Your task to perform on an android device: turn off data saver in the chrome app Image 0: 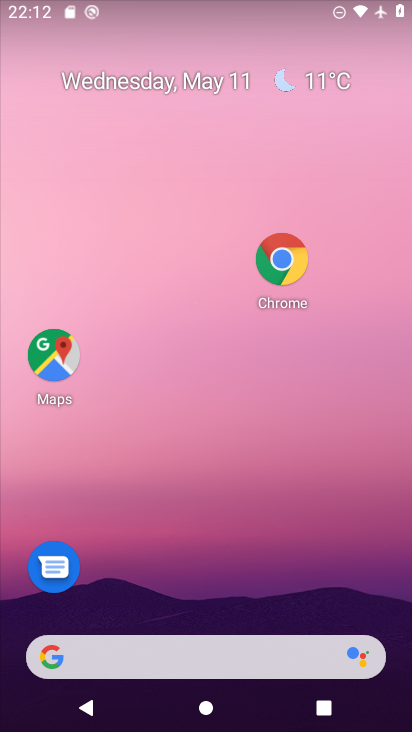
Step 0: press home button
Your task to perform on an android device: turn off data saver in the chrome app Image 1: 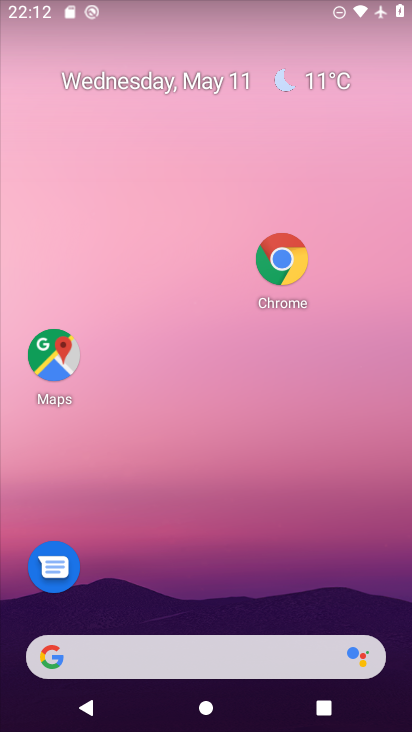
Step 1: drag from (132, 667) to (242, 250)
Your task to perform on an android device: turn off data saver in the chrome app Image 2: 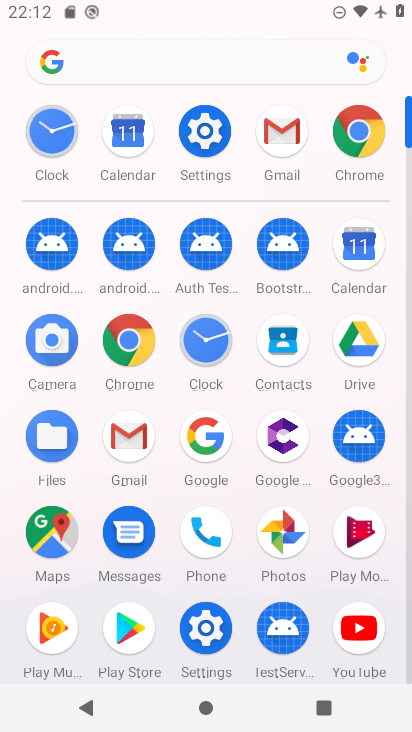
Step 2: click (348, 137)
Your task to perform on an android device: turn off data saver in the chrome app Image 3: 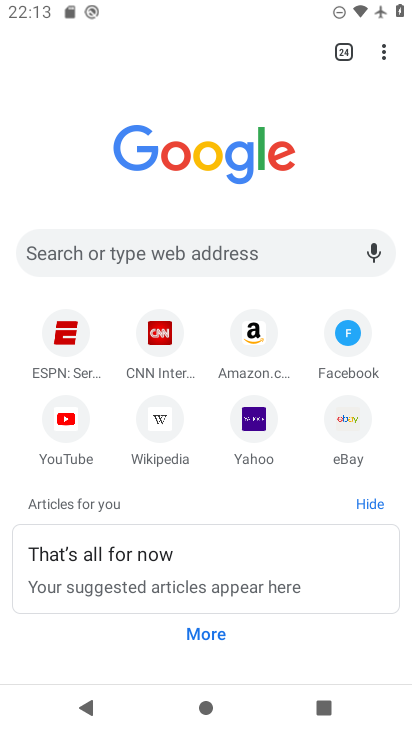
Step 3: drag from (382, 46) to (213, 443)
Your task to perform on an android device: turn off data saver in the chrome app Image 4: 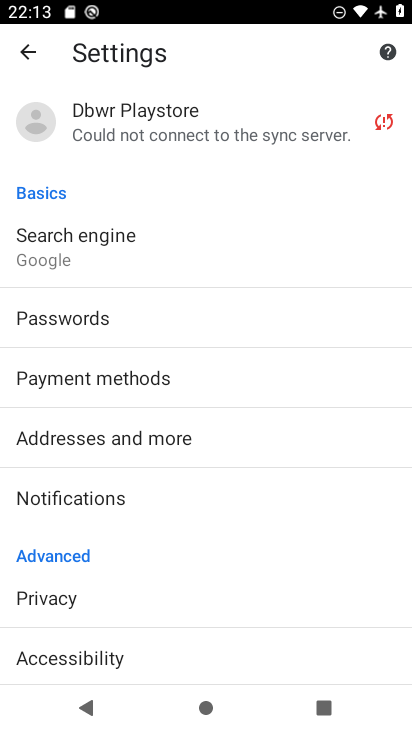
Step 4: drag from (129, 579) to (236, 275)
Your task to perform on an android device: turn off data saver in the chrome app Image 5: 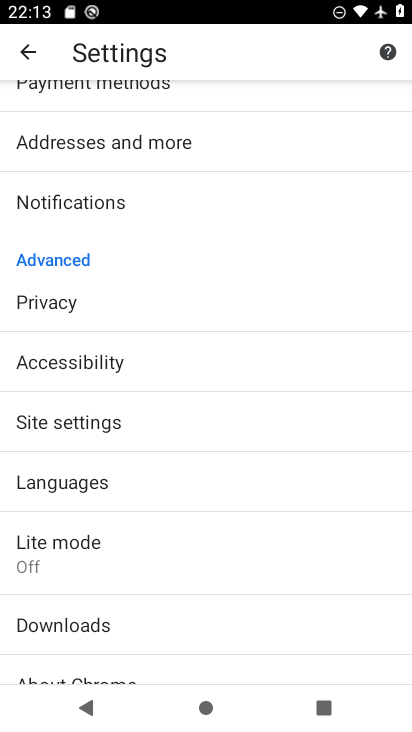
Step 5: click (91, 543)
Your task to perform on an android device: turn off data saver in the chrome app Image 6: 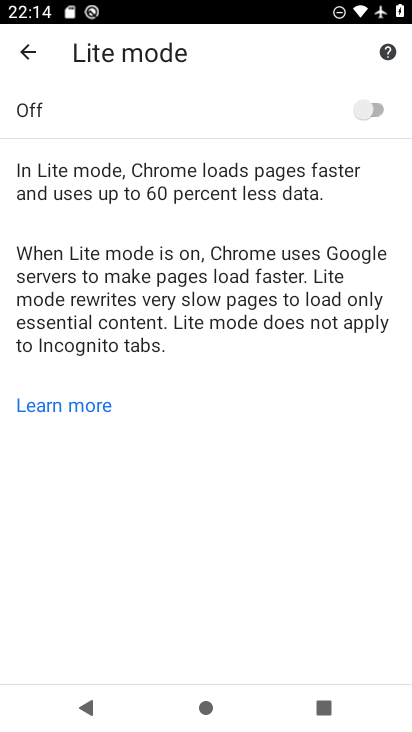
Step 6: task complete